Your task to perform on an android device: open chrome privacy settings Image 0: 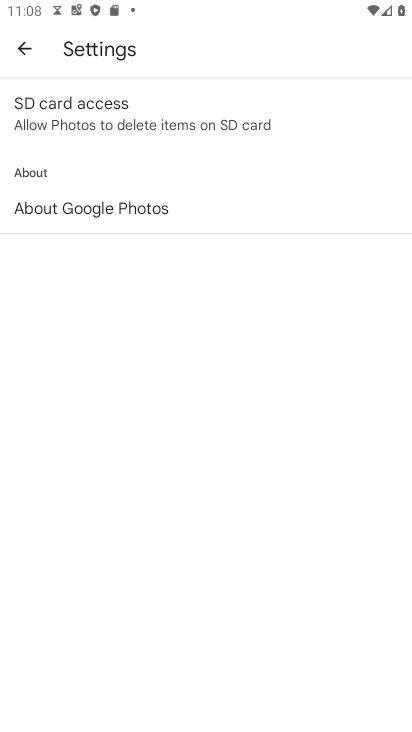
Step 0: press home button
Your task to perform on an android device: open chrome privacy settings Image 1: 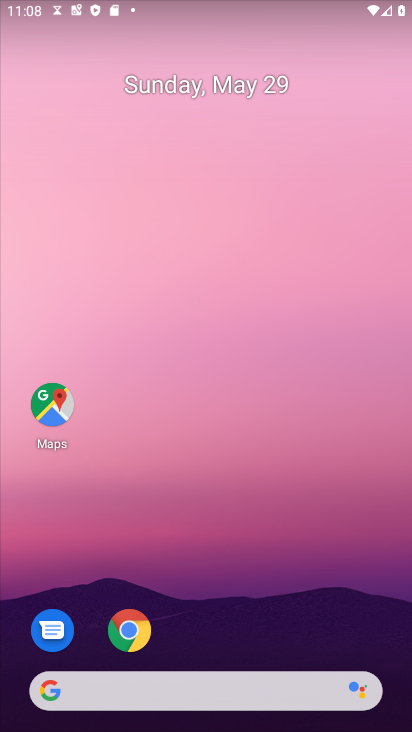
Step 1: click (139, 624)
Your task to perform on an android device: open chrome privacy settings Image 2: 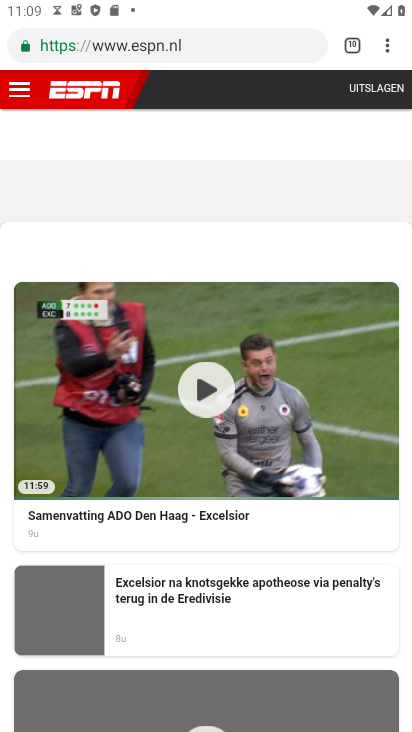
Step 2: click (386, 43)
Your task to perform on an android device: open chrome privacy settings Image 3: 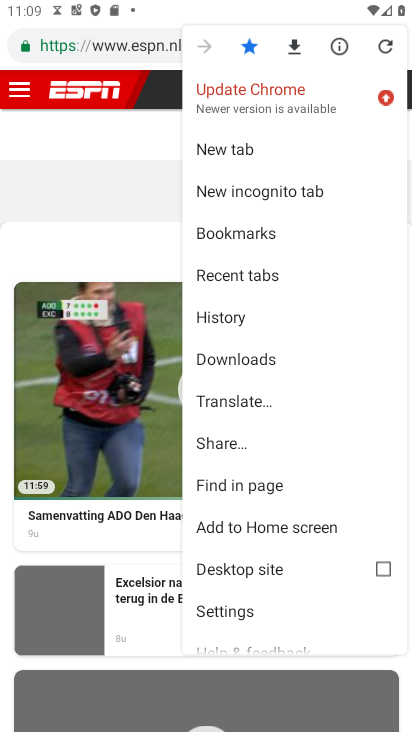
Step 3: click (231, 604)
Your task to perform on an android device: open chrome privacy settings Image 4: 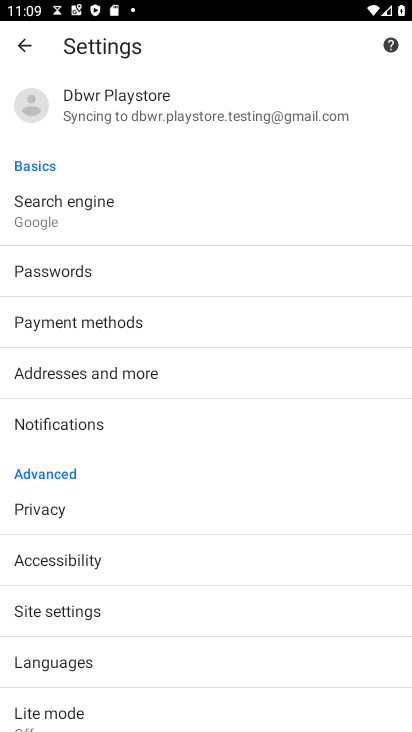
Step 4: click (49, 508)
Your task to perform on an android device: open chrome privacy settings Image 5: 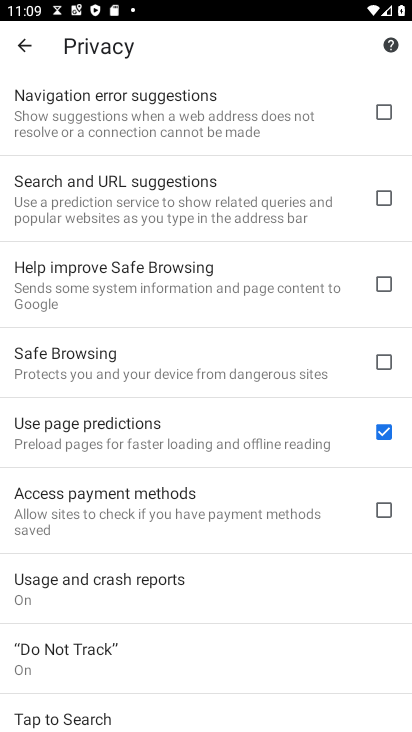
Step 5: task complete